Your task to perform on an android device: add a label to a message in the gmail app Image 0: 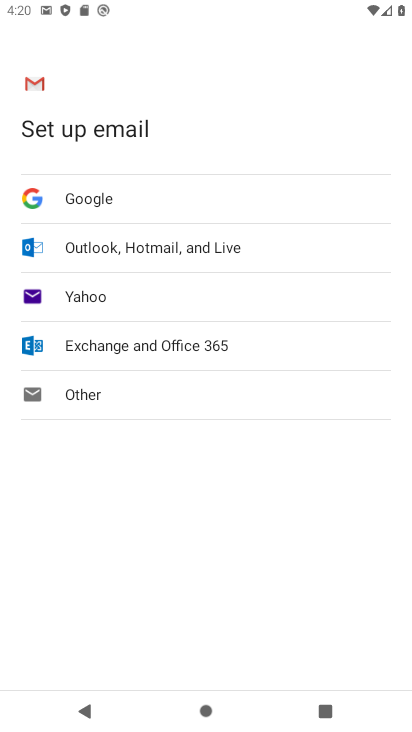
Step 0: press home button
Your task to perform on an android device: add a label to a message in the gmail app Image 1: 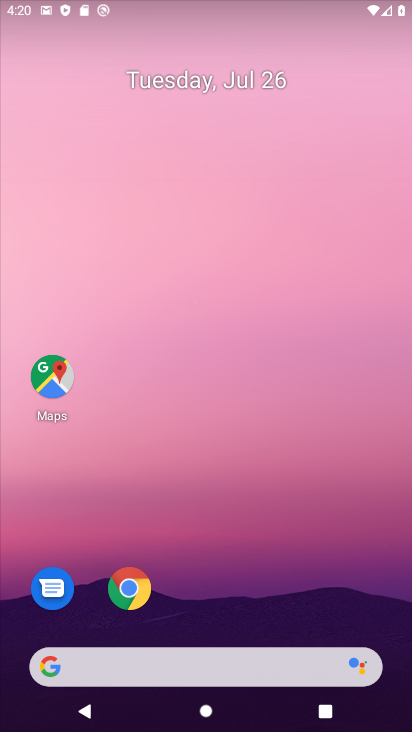
Step 1: drag from (344, 423) to (232, 7)
Your task to perform on an android device: add a label to a message in the gmail app Image 2: 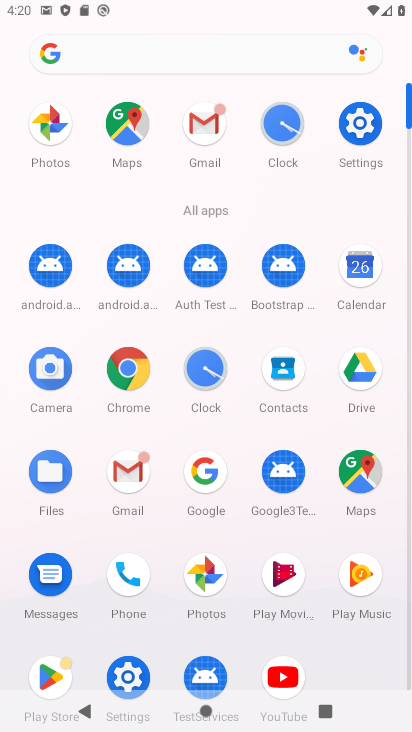
Step 2: click (204, 130)
Your task to perform on an android device: add a label to a message in the gmail app Image 3: 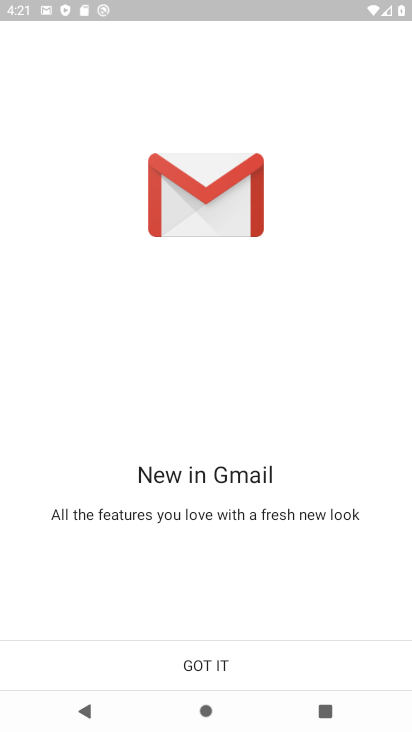
Step 3: click (199, 658)
Your task to perform on an android device: add a label to a message in the gmail app Image 4: 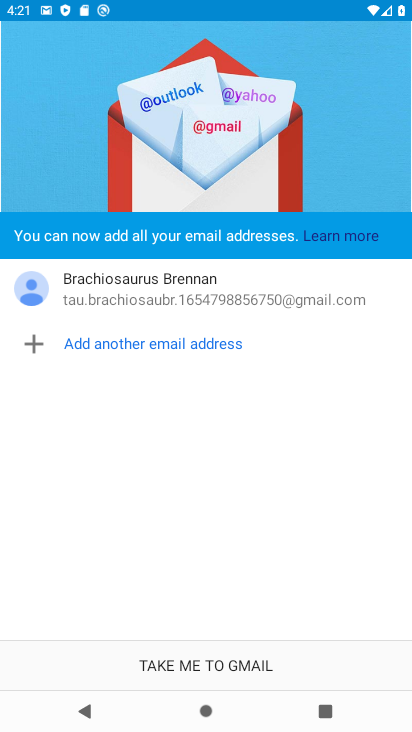
Step 4: click (197, 661)
Your task to perform on an android device: add a label to a message in the gmail app Image 5: 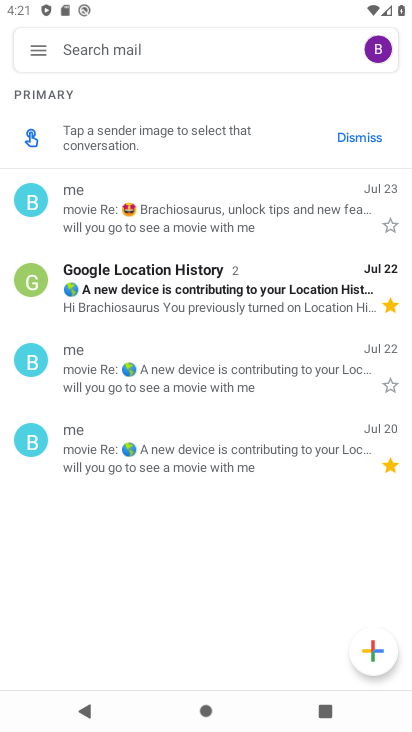
Step 5: click (144, 215)
Your task to perform on an android device: add a label to a message in the gmail app Image 6: 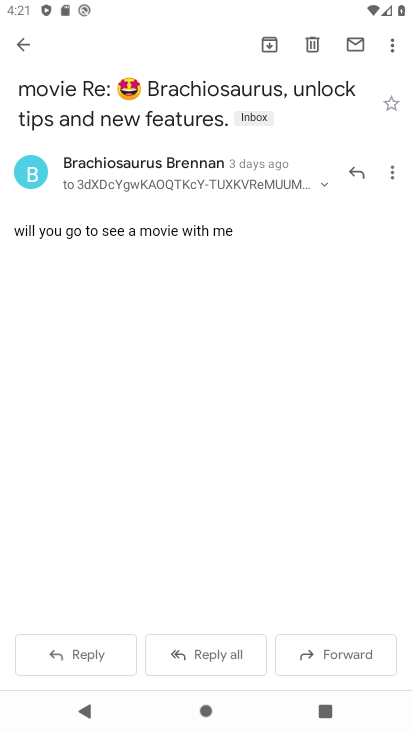
Step 6: task complete